Your task to perform on an android device: Search for the best Mexican restaurants Image 0: 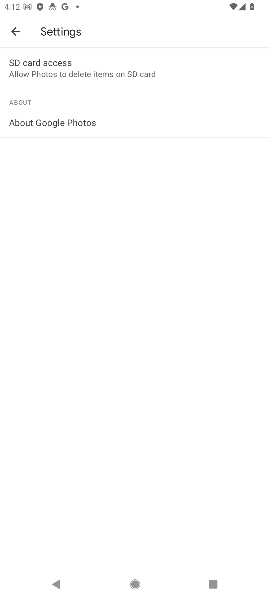
Step 0: press home button
Your task to perform on an android device: Search for the best Mexican restaurants Image 1: 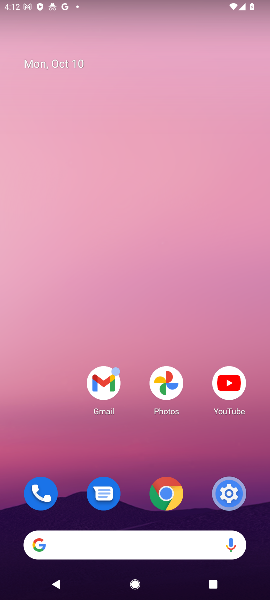
Step 1: click (115, 546)
Your task to perform on an android device: Search for the best Mexican restaurants Image 2: 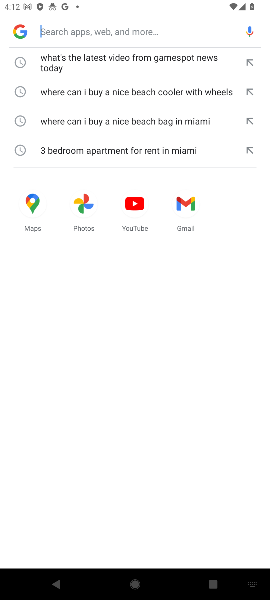
Step 2: type "Search for the best Mexican restaurants"
Your task to perform on an android device: Search for the best Mexican restaurants Image 3: 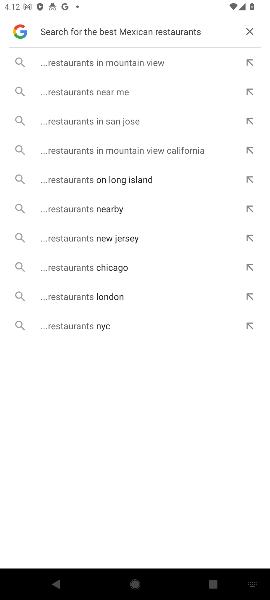
Step 3: click (130, 68)
Your task to perform on an android device: Search for the best Mexican restaurants Image 4: 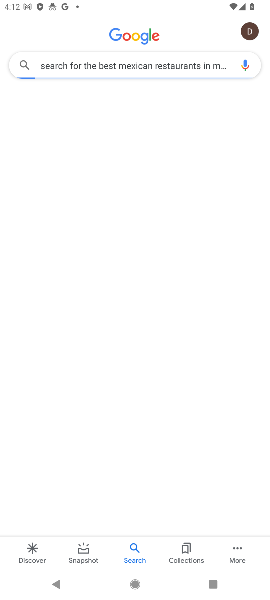
Step 4: task complete